Your task to perform on an android device: turn on the 24-hour format for clock Image 0: 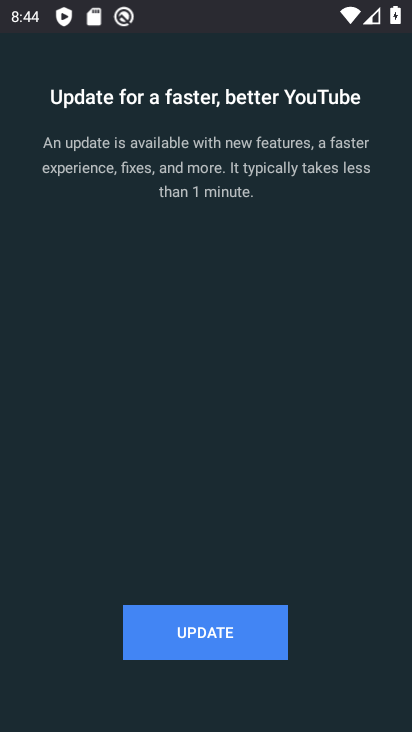
Step 0: press back button
Your task to perform on an android device: turn on the 24-hour format for clock Image 1: 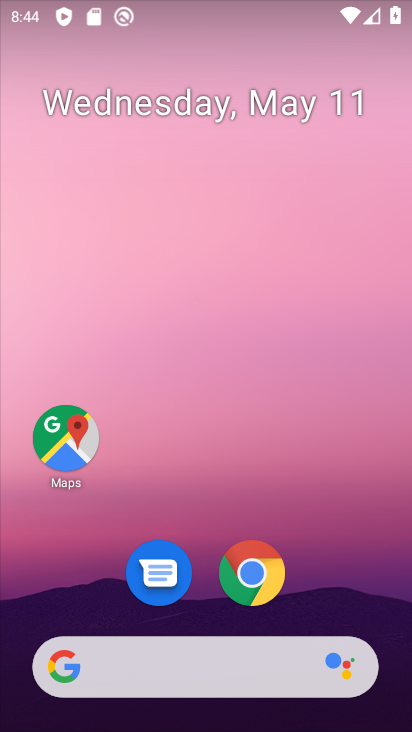
Step 1: click (353, 590)
Your task to perform on an android device: turn on the 24-hour format for clock Image 2: 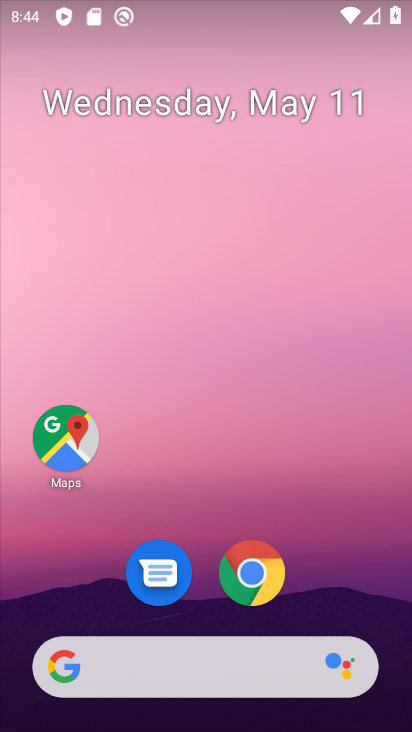
Step 2: drag from (383, 456) to (358, 302)
Your task to perform on an android device: turn on the 24-hour format for clock Image 3: 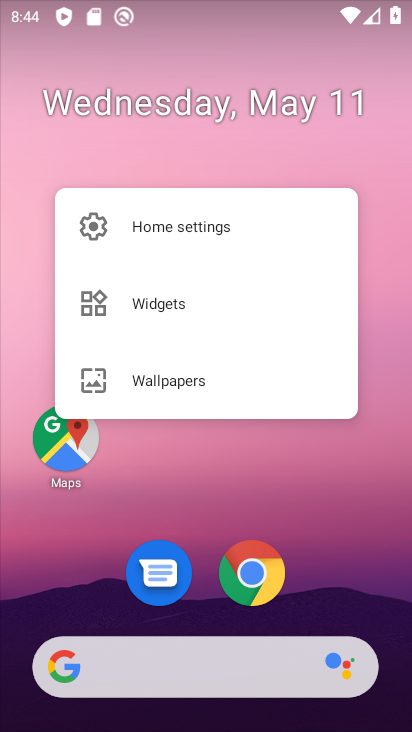
Step 3: click (353, 501)
Your task to perform on an android device: turn on the 24-hour format for clock Image 4: 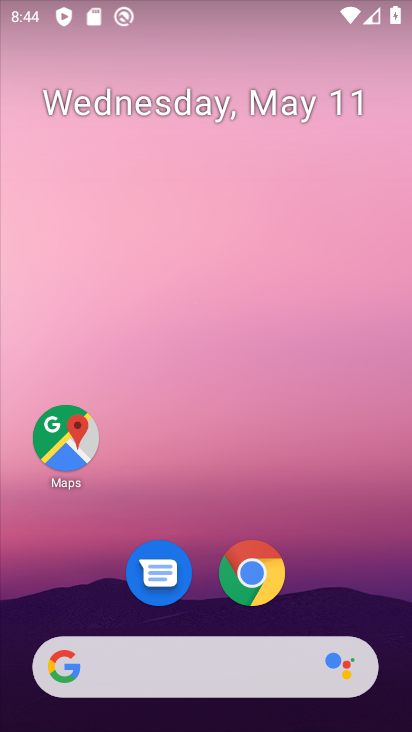
Step 4: drag from (335, 583) to (332, 212)
Your task to perform on an android device: turn on the 24-hour format for clock Image 5: 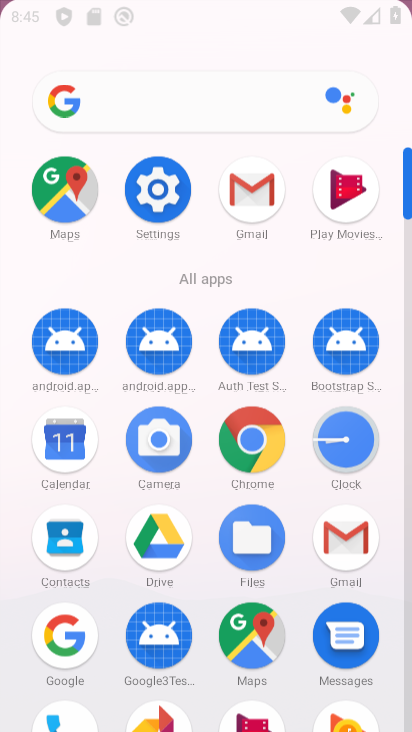
Step 5: click (346, 445)
Your task to perform on an android device: turn on the 24-hour format for clock Image 6: 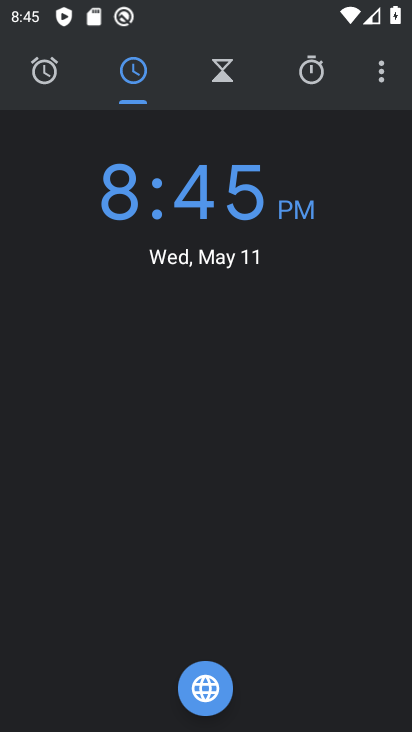
Step 6: click (386, 73)
Your task to perform on an android device: turn on the 24-hour format for clock Image 7: 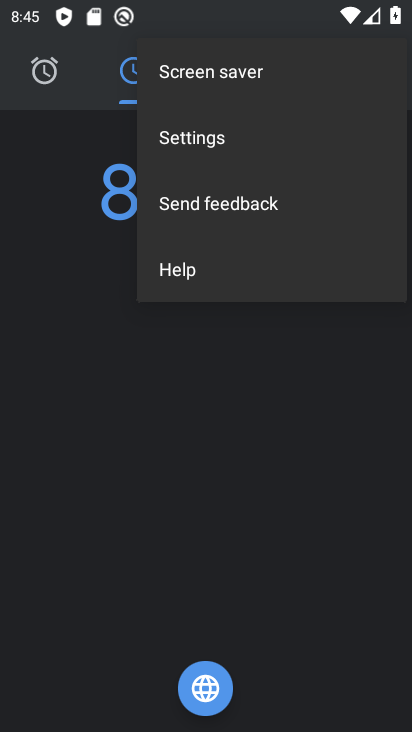
Step 7: click (246, 145)
Your task to perform on an android device: turn on the 24-hour format for clock Image 8: 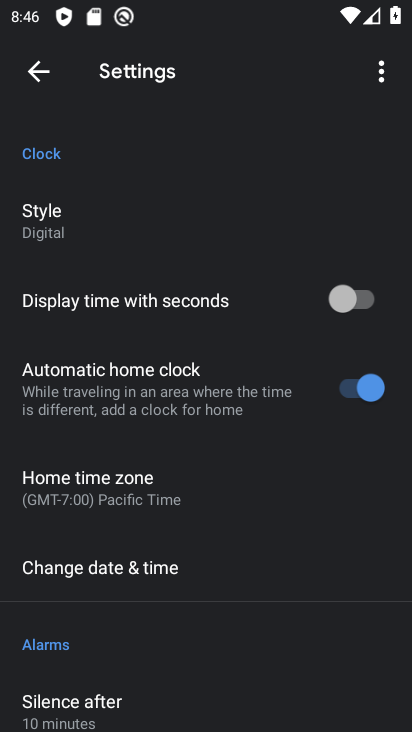
Step 8: click (160, 585)
Your task to perform on an android device: turn on the 24-hour format for clock Image 9: 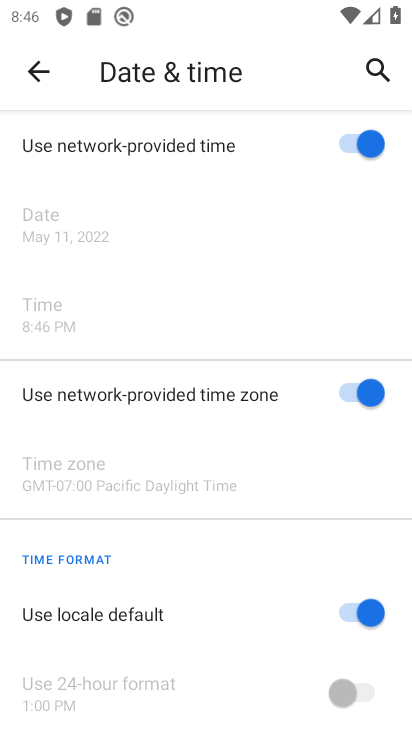
Step 9: click (311, 630)
Your task to perform on an android device: turn on the 24-hour format for clock Image 10: 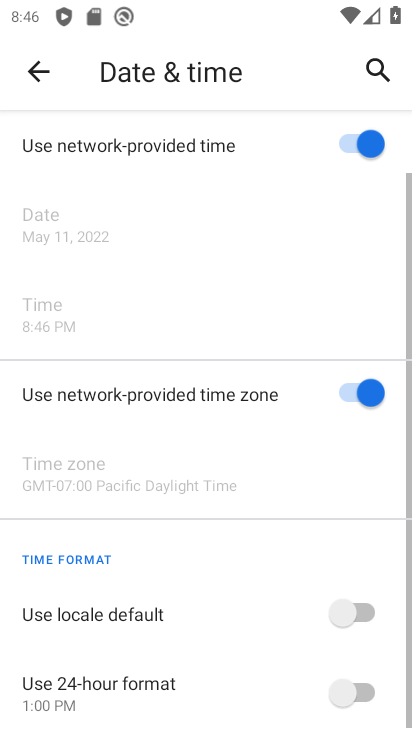
Step 10: click (333, 692)
Your task to perform on an android device: turn on the 24-hour format for clock Image 11: 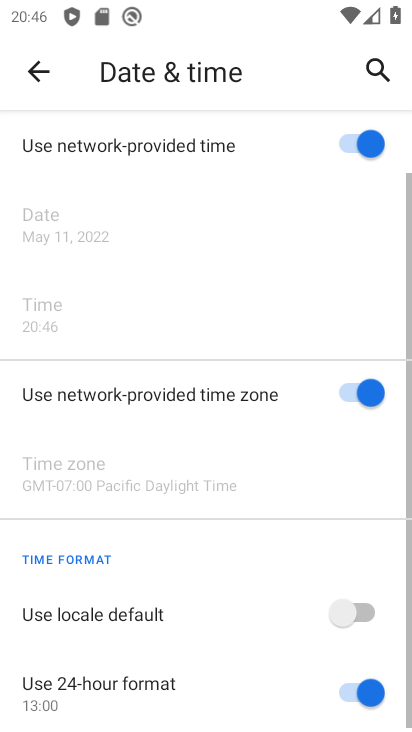
Step 11: task complete